Your task to perform on an android device: Open Yahoo.com Image 0: 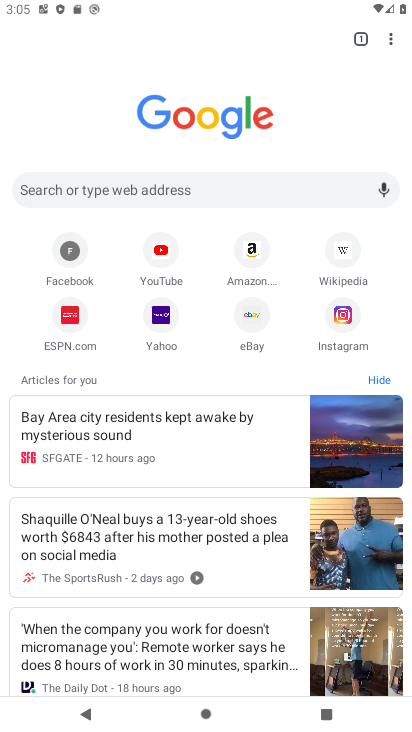
Step 0: click (165, 311)
Your task to perform on an android device: Open Yahoo.com Image 1: 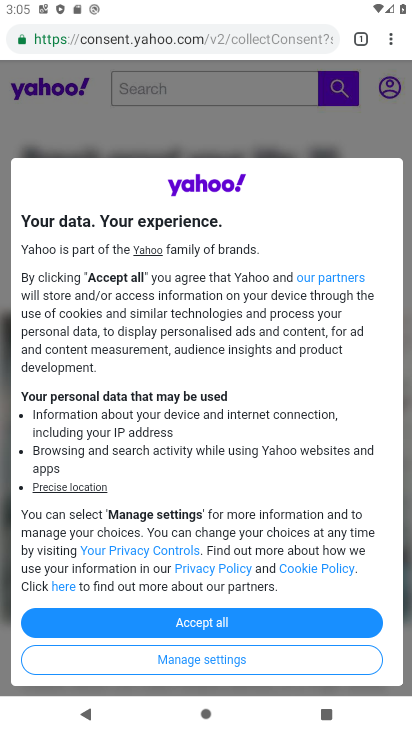
Step 1: task complete